Your task to perform on an android device: Open internet settings Image 0: 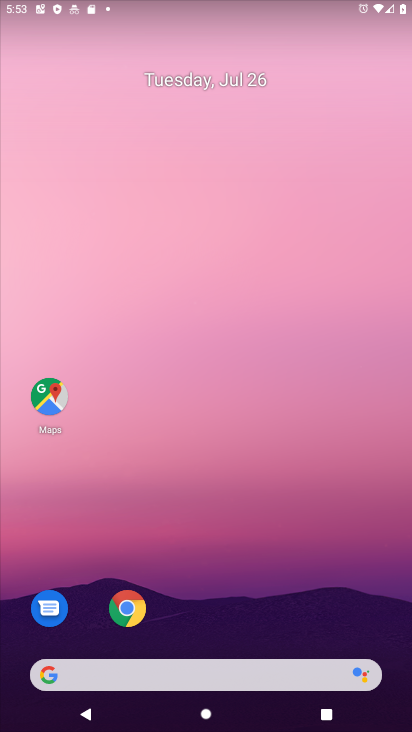
Step 0: press home button
Your task to perform on an android device: Open internet settings Image 1: 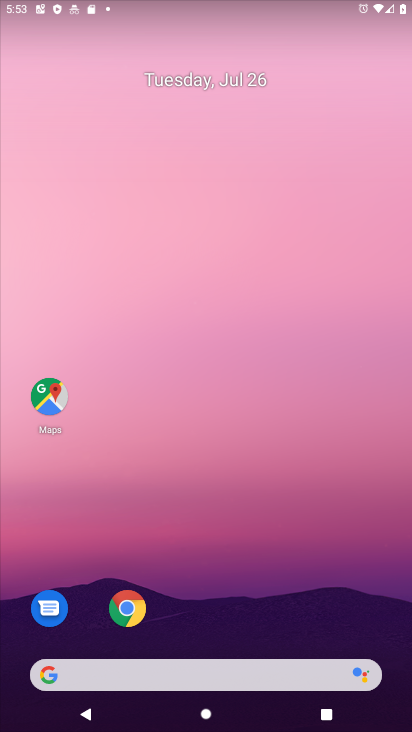
Step 1: drag from (197, 639) to (243, 92)
Your task to perform on an android device: Open internet settings Image 2: 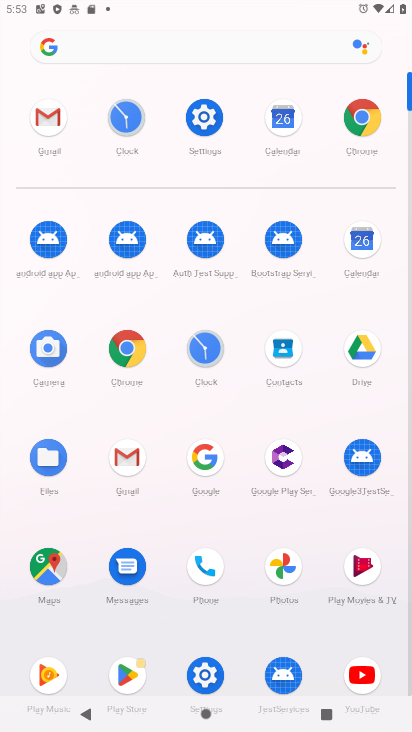
Step 2: click (191, 115)
Your task to perform on an android device: Open internet settings Image 3: 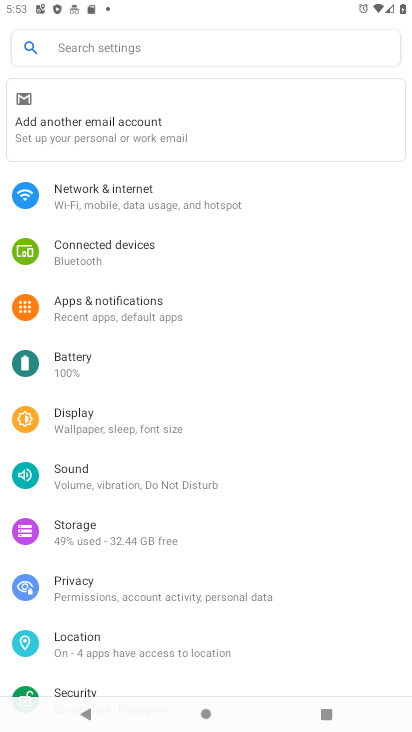
Step 3: click (118, 200)
Your task to perform on an android device: Open internet settings Image 4: 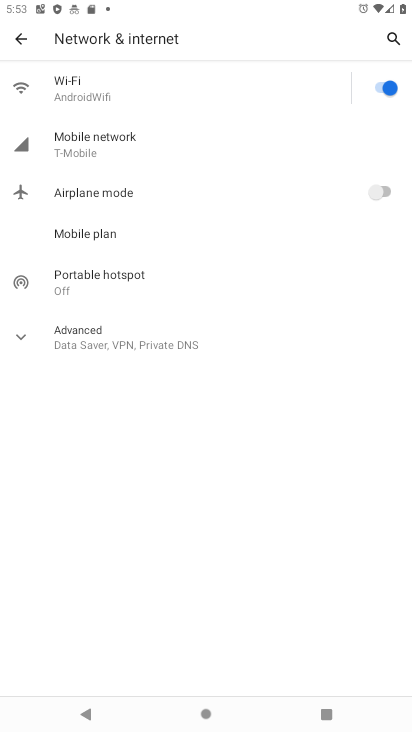
Step 4: task complete